Your task to perform on an android device: turn on improve location accuracy Image 0: 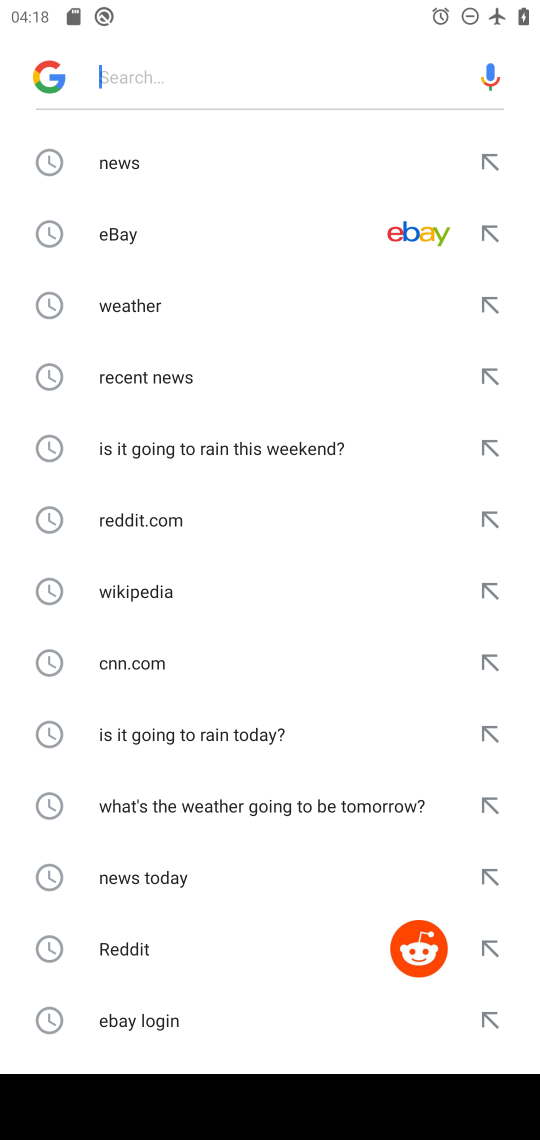
Step 0: press home button
Your task to perform on an android device: turn on improve location accuracy Image 1: 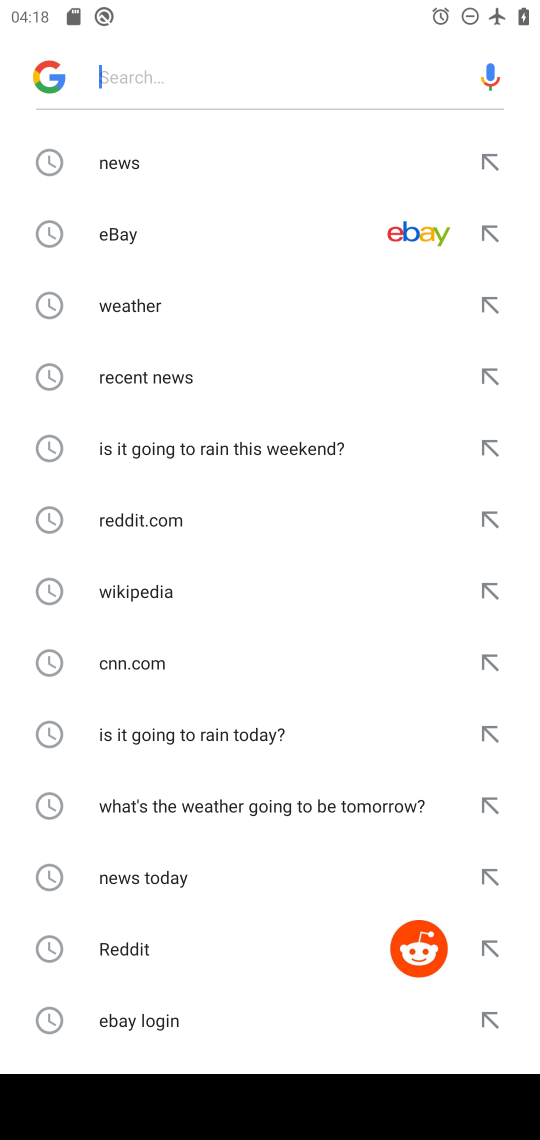
Step 1: press home button
Your task to perform on an android device: turn on improve location accuracy Image 2: 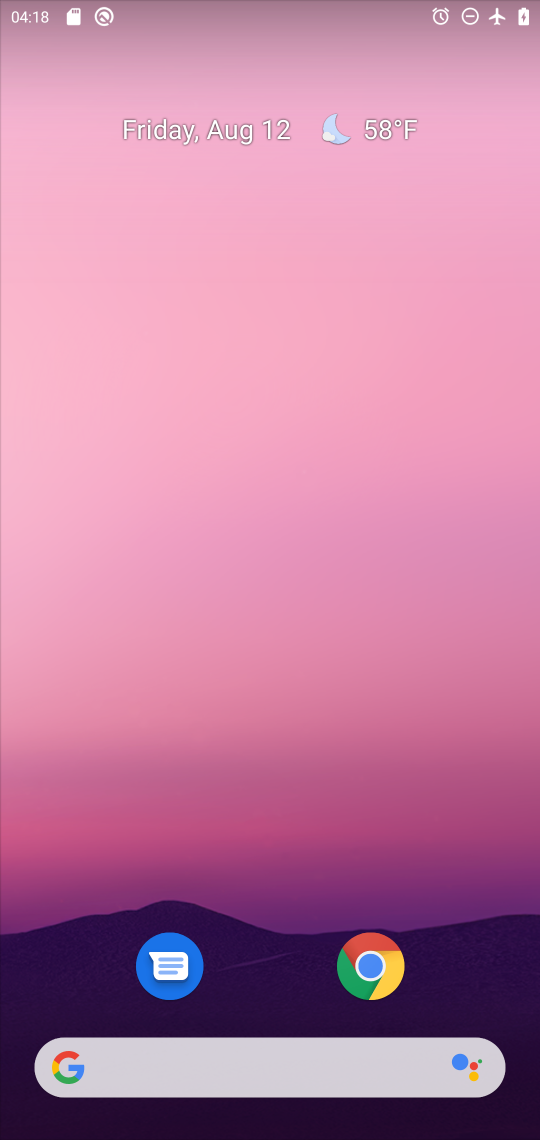
Step 2: drag from (279, 941) to (395, 115)
Your task to perform on an android device: turn on improve location accuracy Image 3: 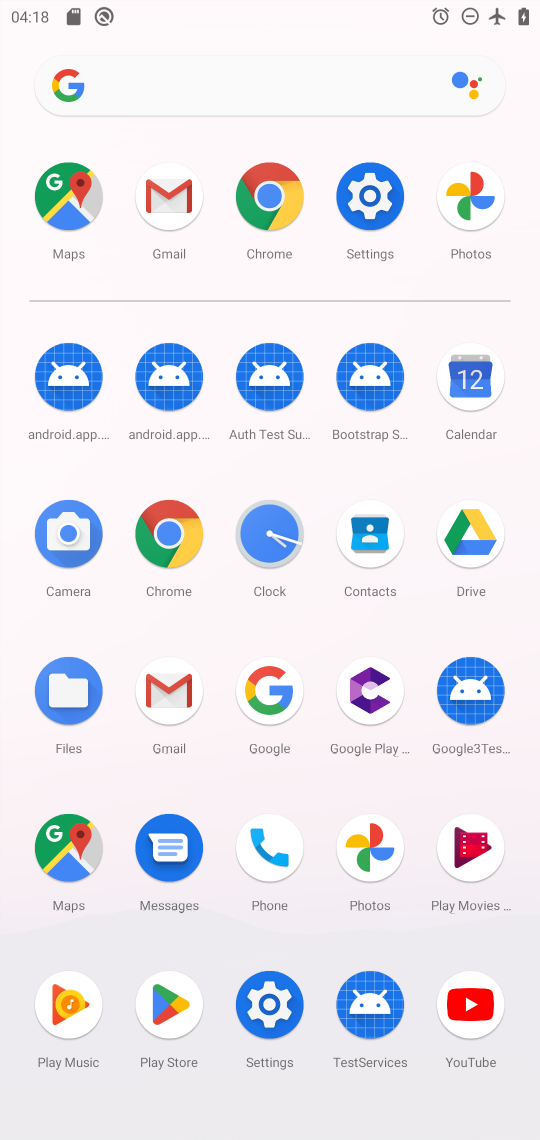
Step 3: click (265, 985)
Your task to perform on an android device: turn on improve location accuracy Image 4: 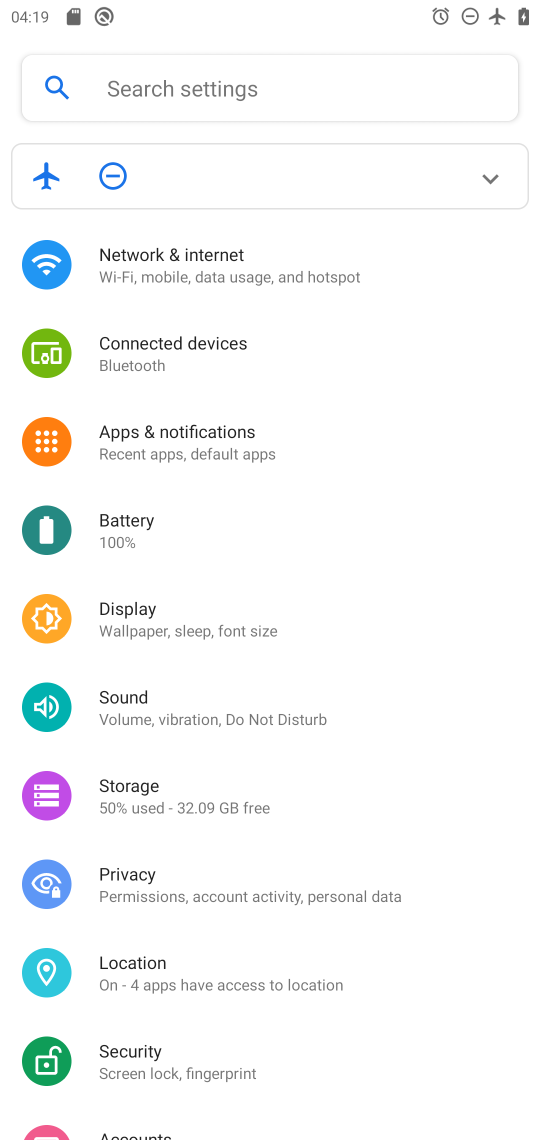
Step 4: click (186, 989)
Your task to perform on an android device: turn on improve location accuracy Image 5: 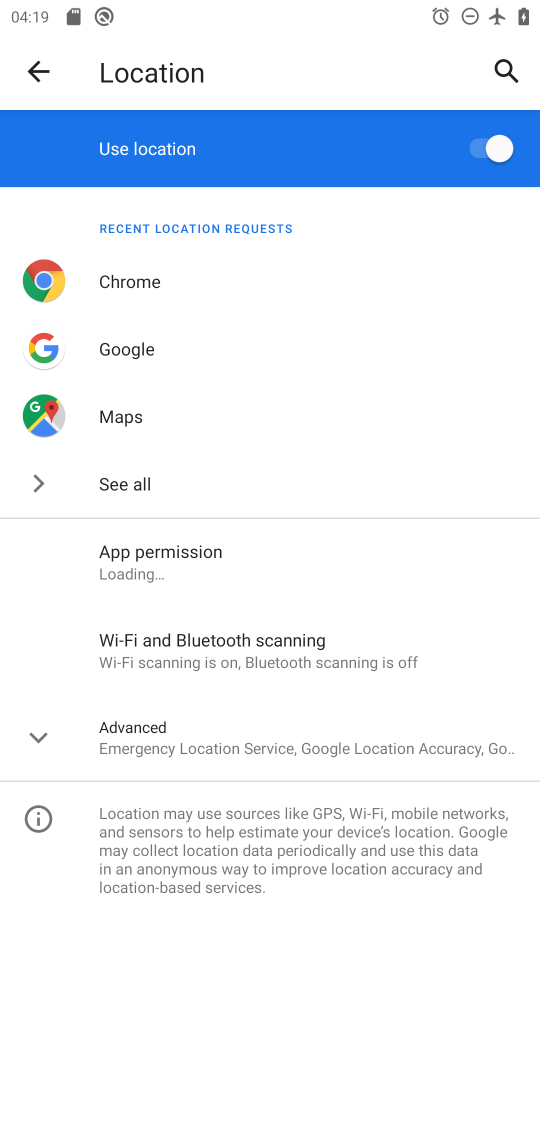
Step 5: click (194, 760)
Your task to perform on an android device: turn on improve location accuracy Image 6: 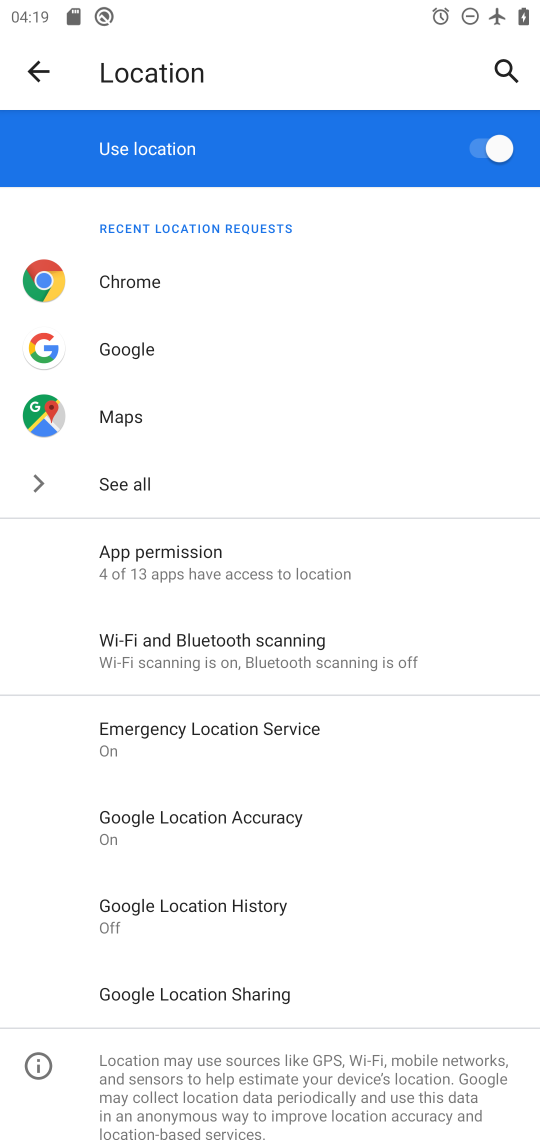
Step 6: click (266, 813)
Your task to perform on an android device: turn on improve location accuracy Image 7: 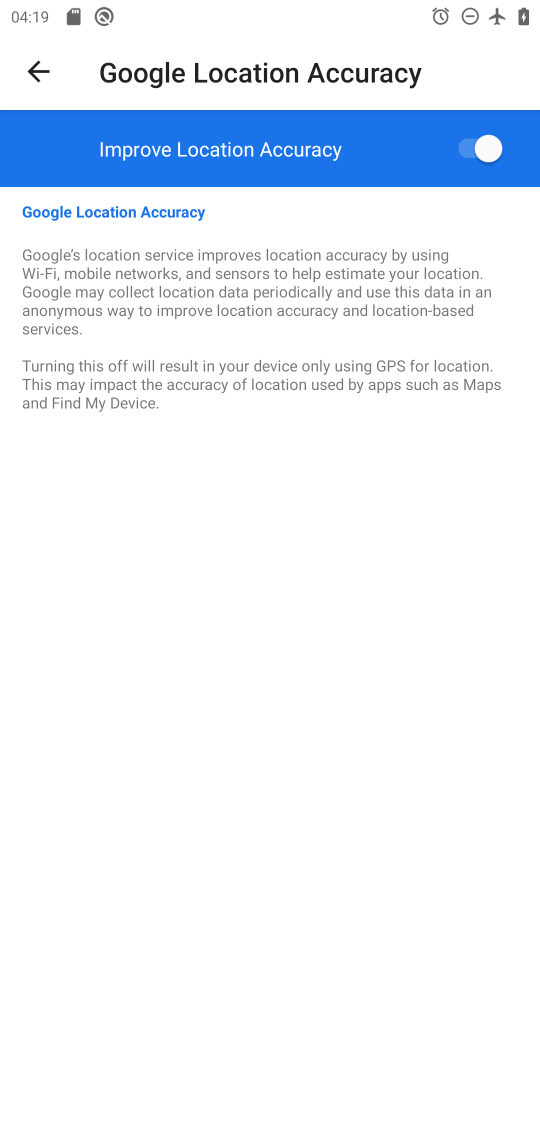
Step 7: task complete